Your task to perform on an android device: Open Google Chrome and open the bookmarks view Image 0: 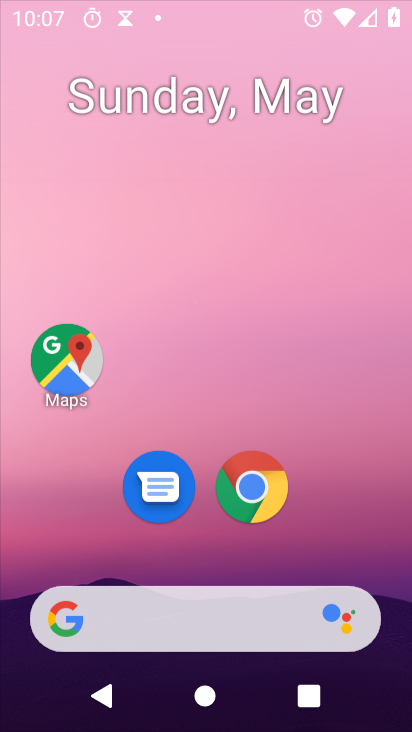
Step 0: click (394, 12)
Your task to perform on an android device: Open Google Chrome and open the bookmarks view Image 1: 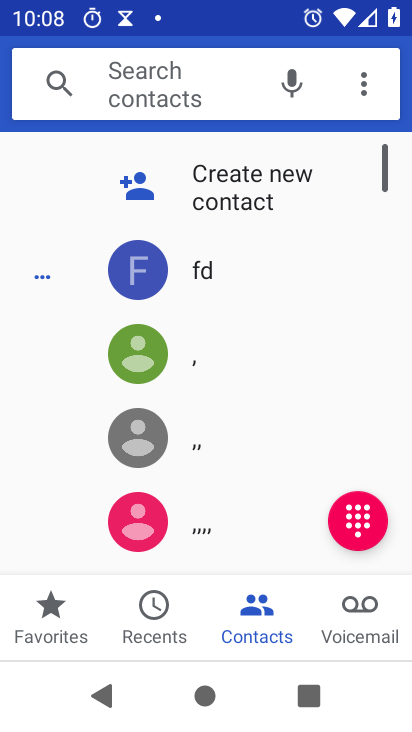
Step 1: press home button
Your task to perform on an android device: Open Google Chrome and open the bookmarks view Image 2: 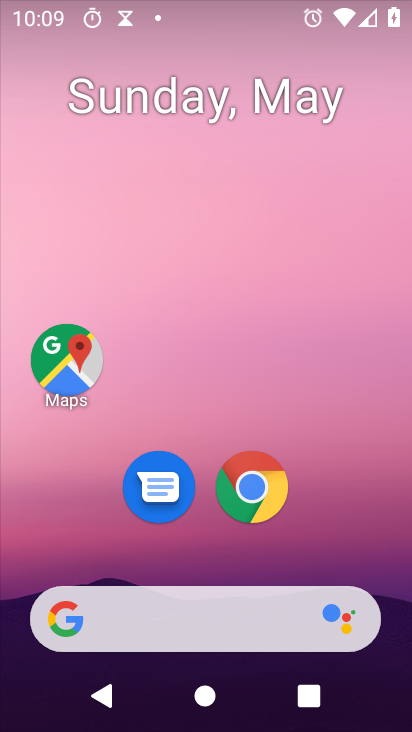
Step 2: drag from (339, 517) to (384, 195)
Your task to perform on an android device: Open Google Chrome and open the bookmarks view Image 3: 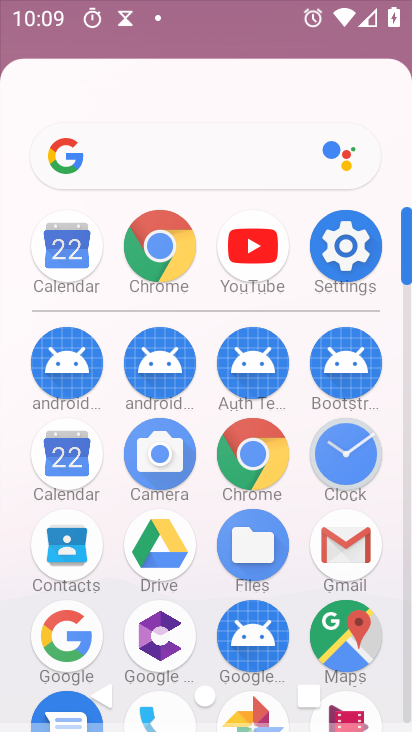
Step 3: drag from (206, 240) to (229, 172)
Your task to perform on an android device: Open Google Chrome and open the bookmarks view Image 4: 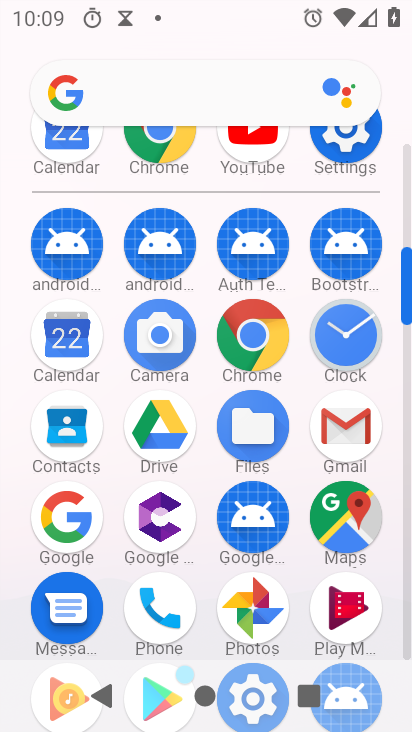
Step 4: click (158, 150)
Your task to perform on an android device: Open Google Chrome and open the bookmarks view Image 5: 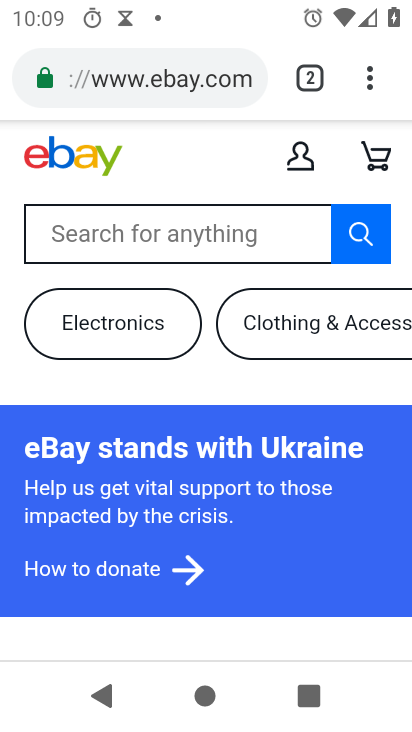
Step 5: task complete